Your task to perform on an android device: Open Google Image 0: 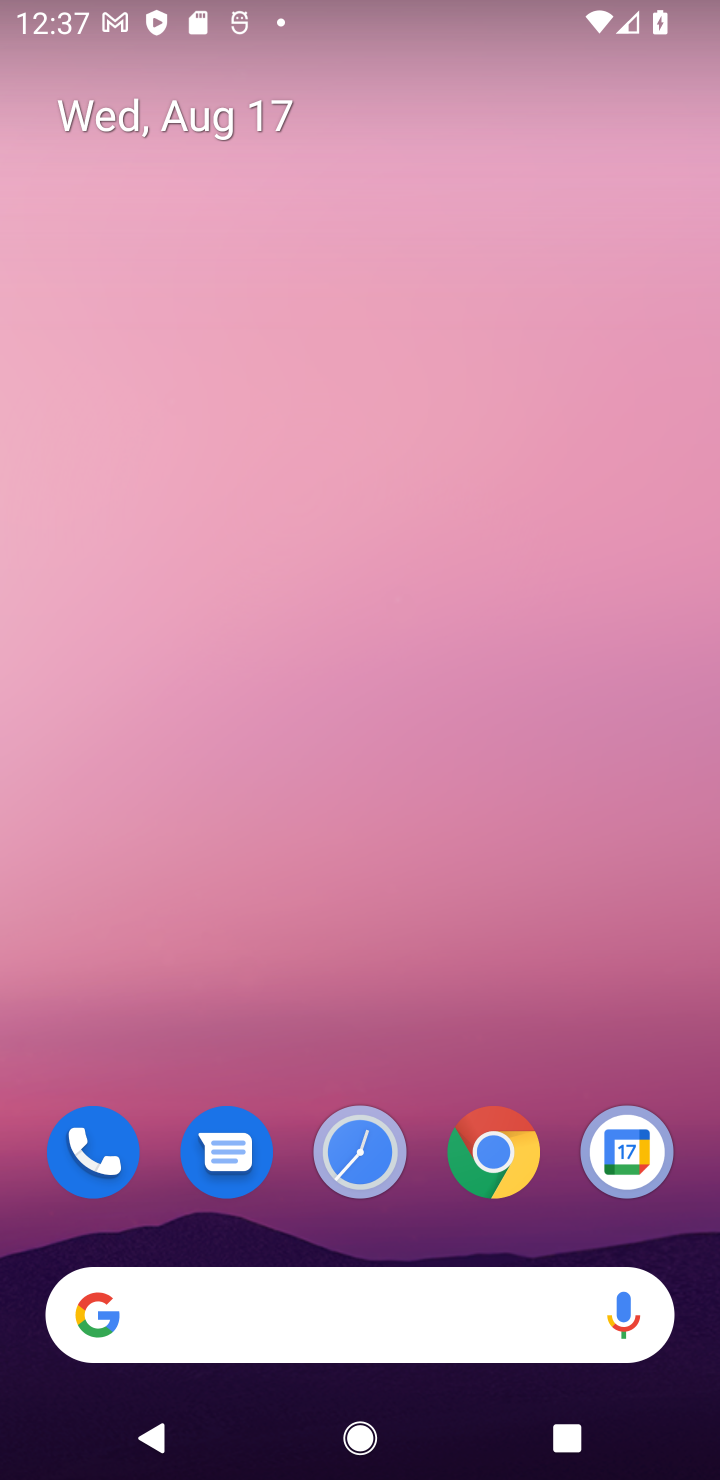
Step 0: drag from (558, 1233) to (350, 30)
Your task to perform on an android device: Open Google Image 1: 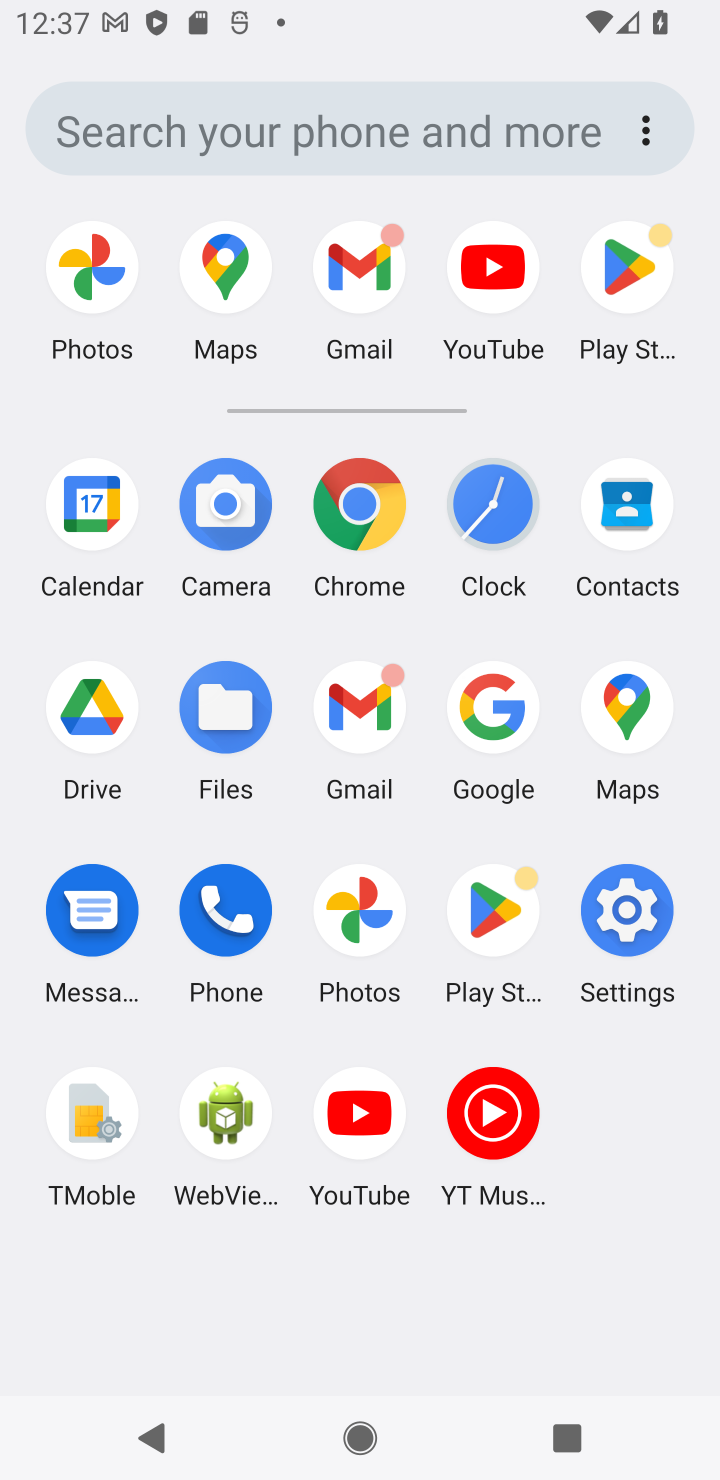
Step 1: click (482, 698)
Your task to perform on an android device: Open Google Image 2: 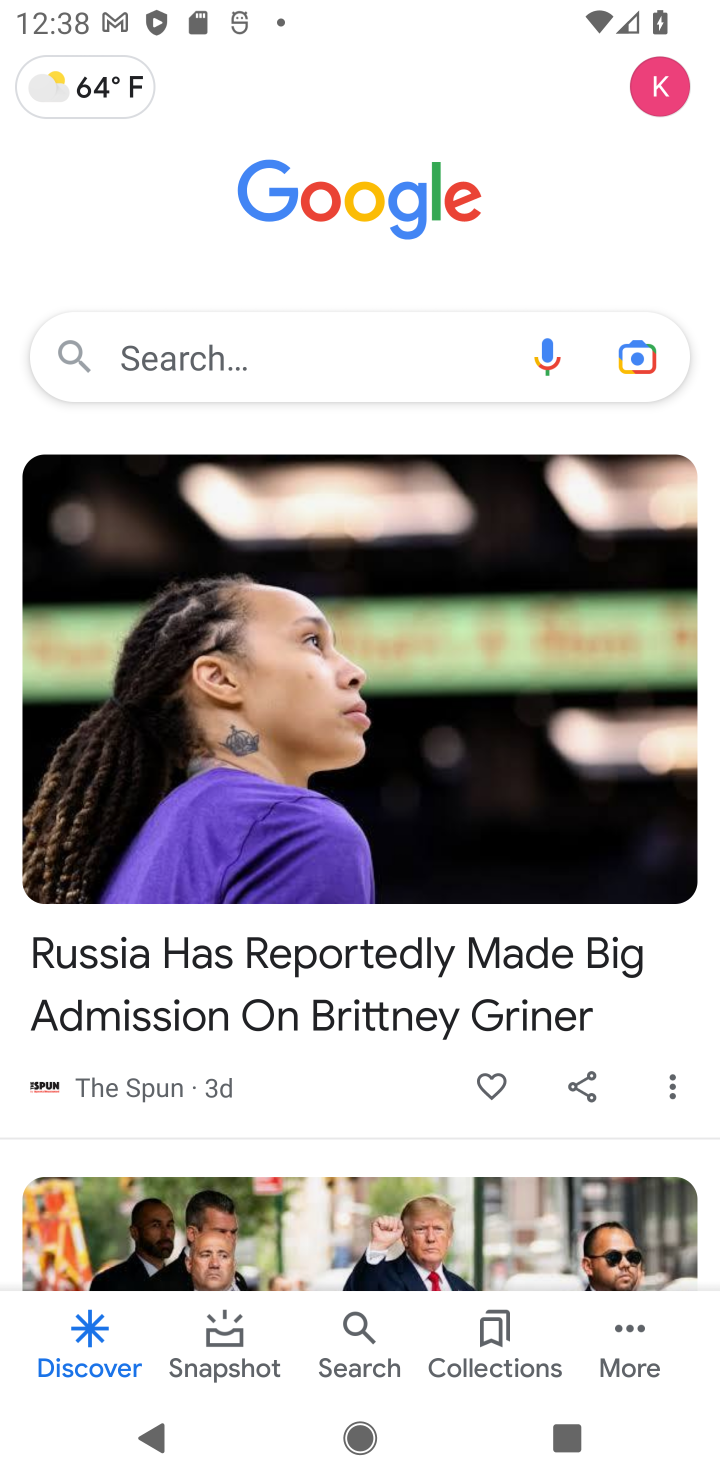
Step 2: task complete